Your task to perform on an android device: toggle notification dots Image 0: 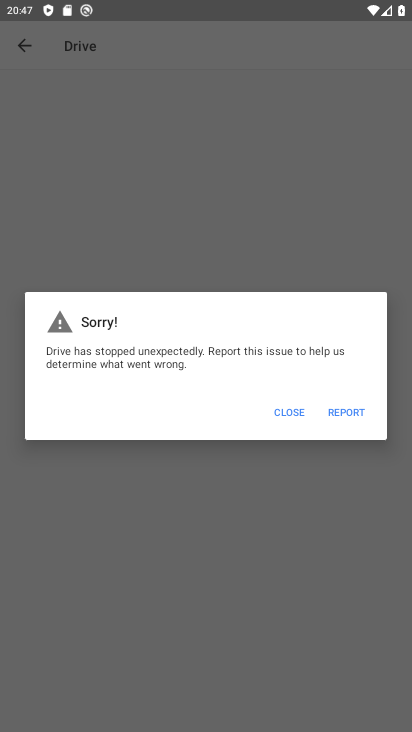
Step 0: press home button
Your task to perform on an android device: toggle notification dots Image 1: 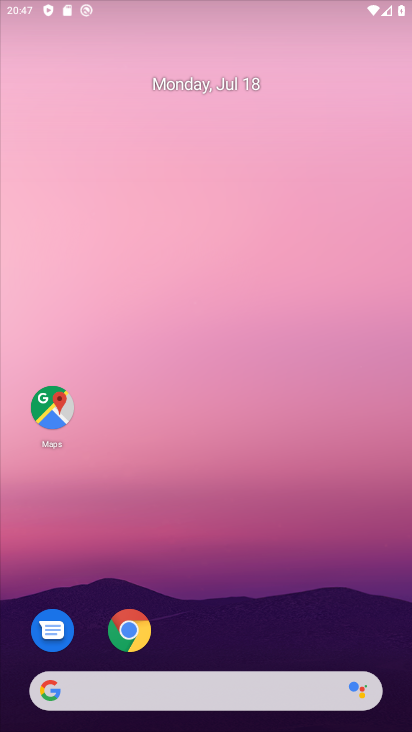
Step 1: drag from (216, 644) to (257, 344)
Your task to perform on an android device: toggle notification dots Image 2: 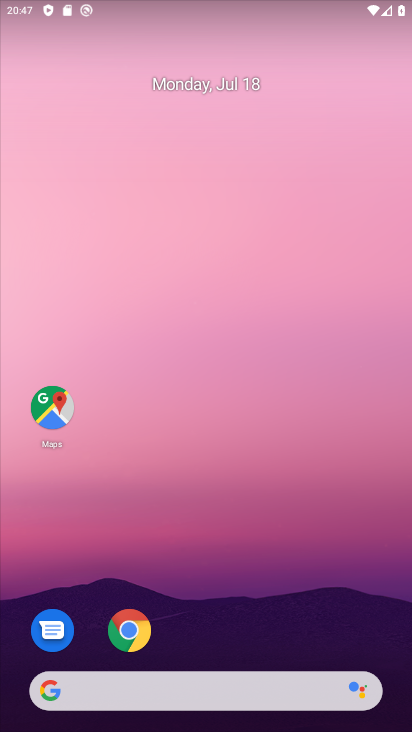
Step 2: drag from (233, 608) to (261, 368)
Your task to perform on an android device: toggle notification dots Image 3: 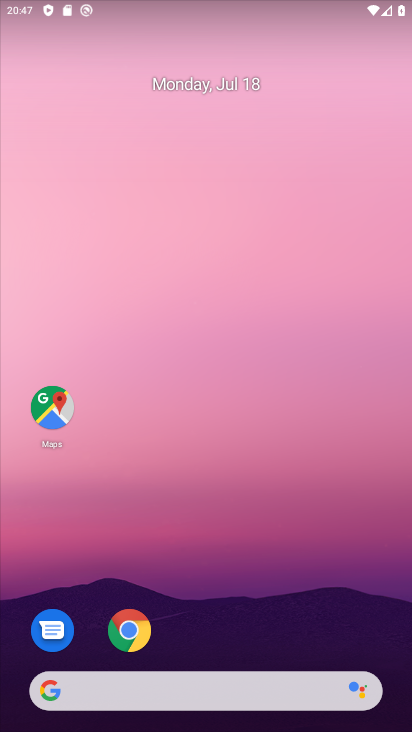
Step 3: drag from (214, 647) to (301, 253)
Your task to perform on an android device: toggle notification dots Image 4: 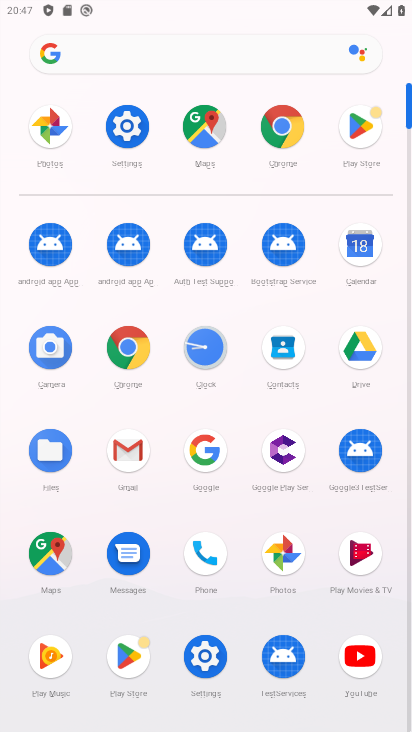
Step 4: click (137, 114)
Your task to perform on an android device: toggle notification dots Image 5: 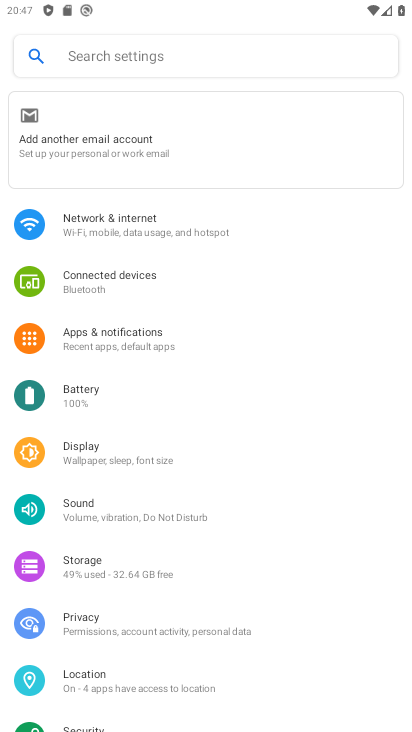
Step 5: click (185, 47)
Your task to perform on an android device: toggle notification dots Image 6: 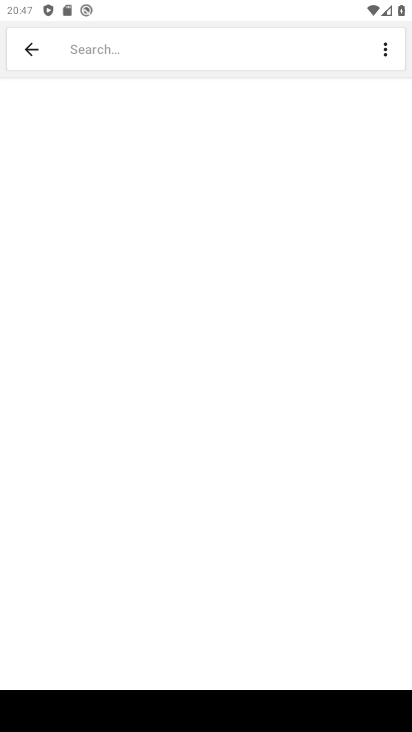
Step 6: click (168, 45)
Your task to perform on an android device: toggle notification dots Image 7: 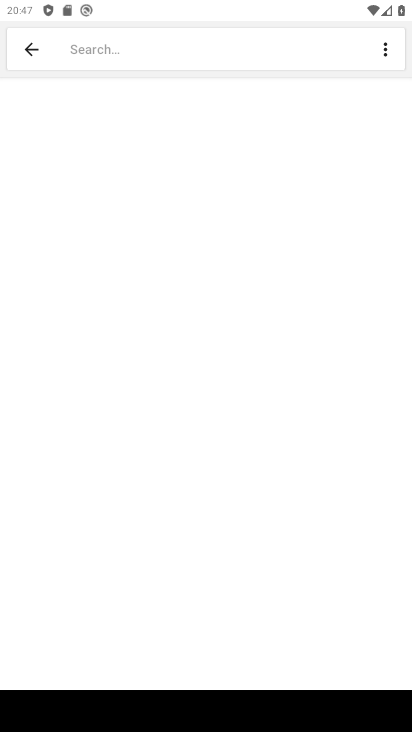
Step 7: type " notification dots "
Your task to perform on an android device: toggle notification dots Image 8: 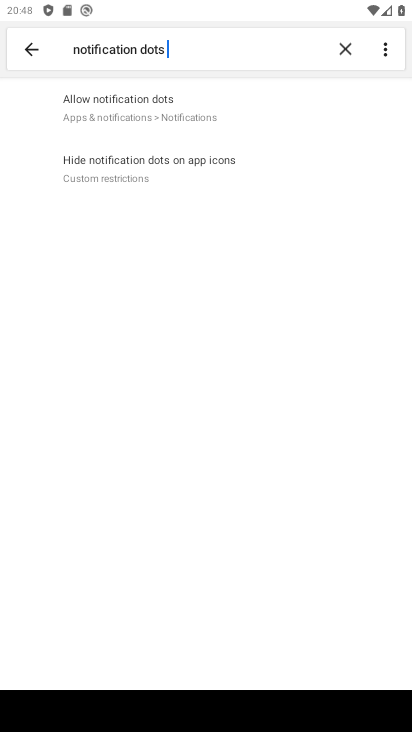
Step 8: click (156, 108)
Your task to perform on an android device: toggle notification dots Image 9: 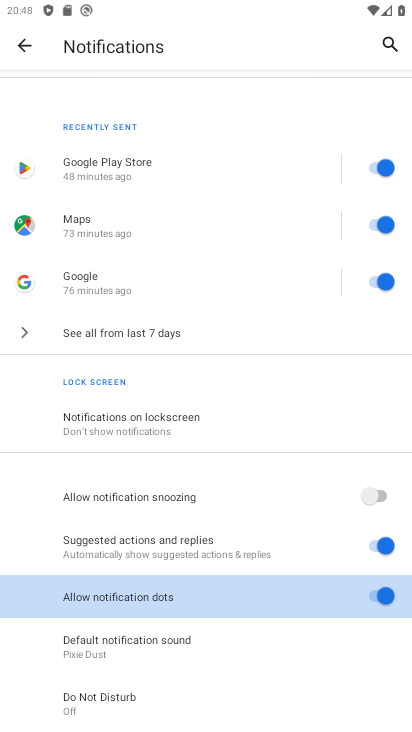
Step 9: click (383, 587)
Your task to perform on an android device: toggle notification dots Image 10: 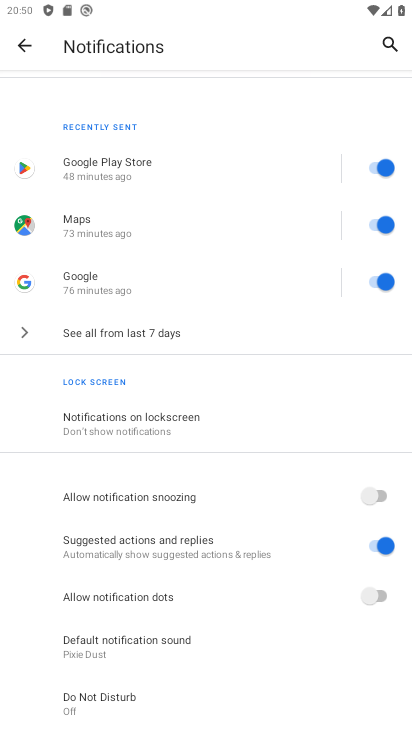
Step 10: task complete